Your task to perform on an android device: turn smart compose on in the gmail app Image 0: 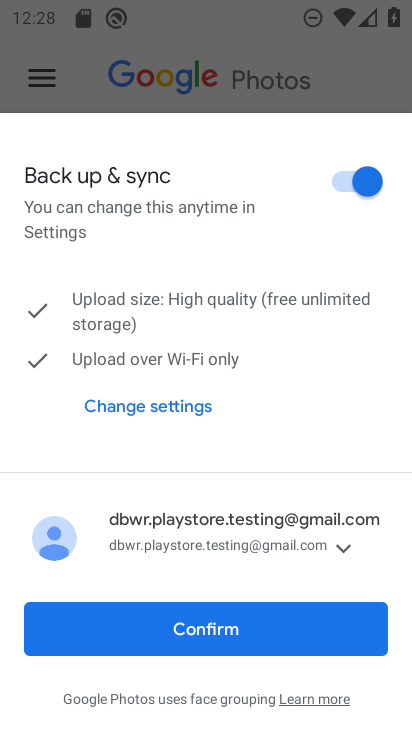
Step 0: press home button
Your task to perform on an android device: turn smart compose on in the gmail app Image 1: 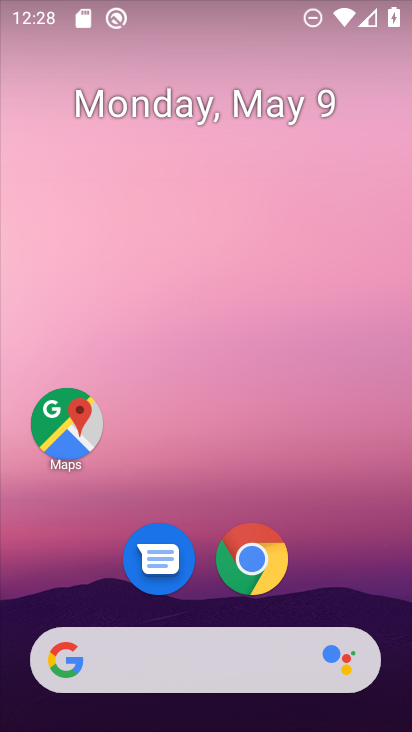
Step 1: drag from (374, 592) to (356, 15)
Your task to perform on an android device: turn smart compose on in the gmail app Image 2: 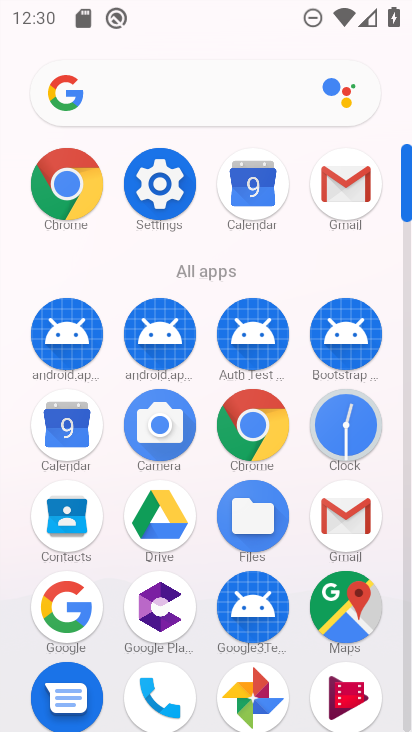
Step 2: drag from (410, 250) to (411, 356)
Your task to perform on an android device: turn smart compose on in the gmail app Image 3: 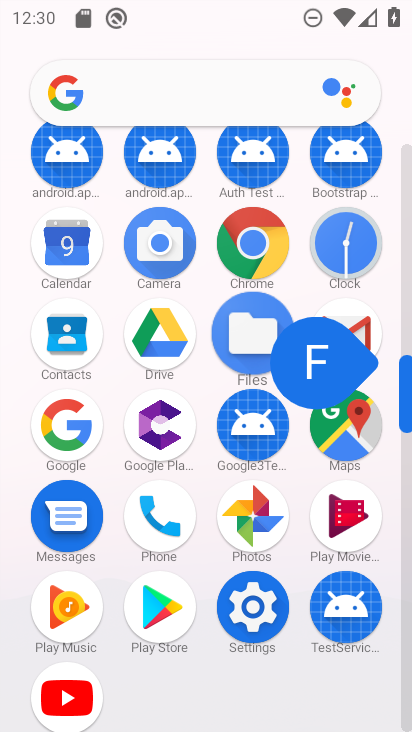
Step 3: drag from (404, 430) to (354, 731)
Your task to perform on an android device: turn smart compose on in the gmail app Image 4: 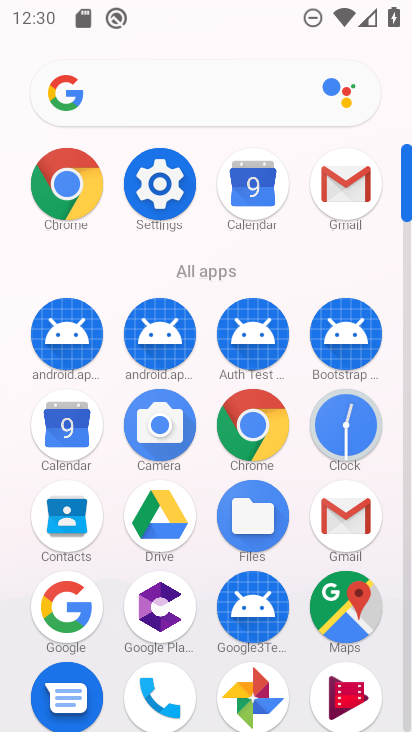
Step 4: click (368, 512)
Your task to perform on an android device: turn smart compose on in the gmail app Image 5: 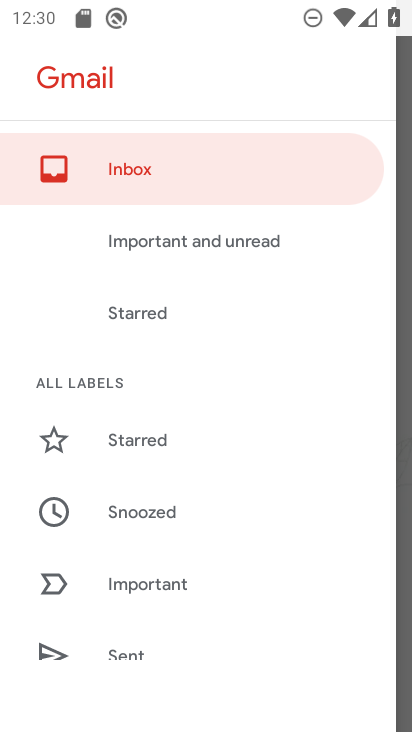
Step 5: drag from (227, 654) to (258, 199)
Your task to perform on an android device: turn smart compose on in the gmail app Image 6: 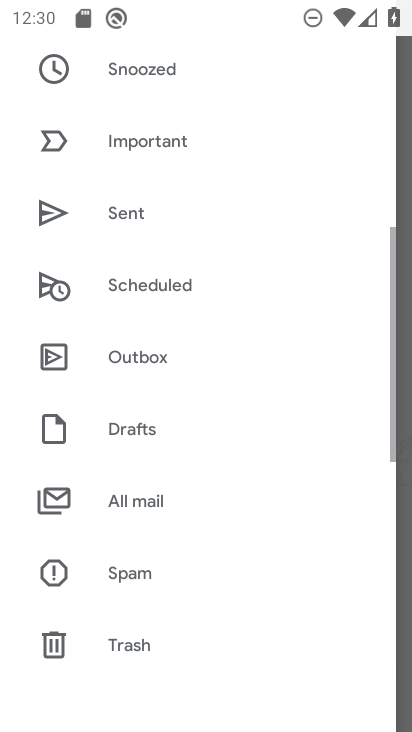
Step 6: drag from (232, 457) to (232, 208)
Your task to perform on an android device: turn smart compose on in the gmail app Image 7: 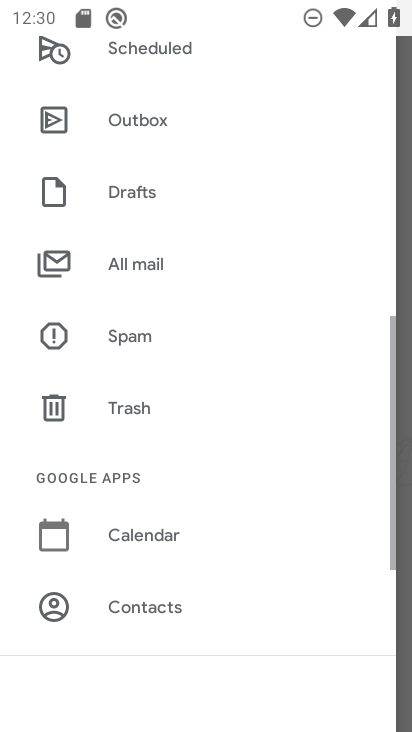
Step 7: drag from (232, 476) to (230, 300)
Your task to perform on an android device: turn smart compose on in the gmail app Image 8: 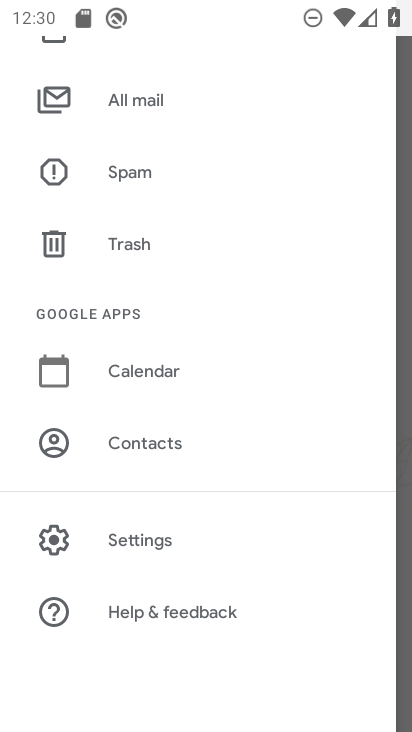
Step 8: drag from (151, 595) to (165, 242)
Your task to perform on an android device: turn smart compose on in the gmail app Image 9: 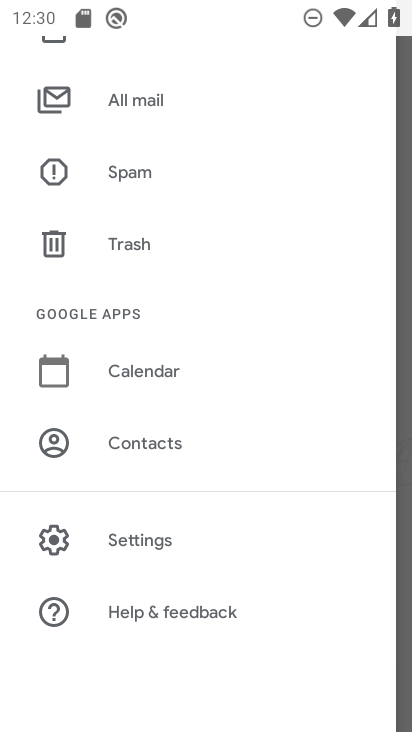
Step 9: click (159, 539)
Your task to perform on an android device: turn smart compose on in the gmail app Image 10: 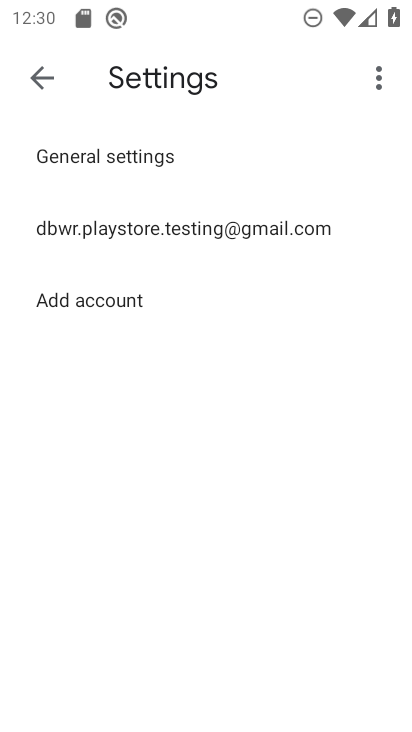
Step 10: click (216, 242)
Your task to perform on an android device: turn smart compose on in the gmail app Image 11: 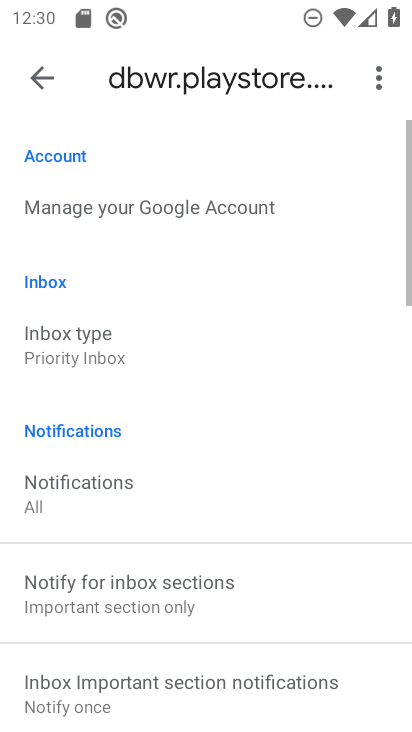
Step 11: task complete